Your task to perform on an android device: Is it going to rain this weekend? Image 0: 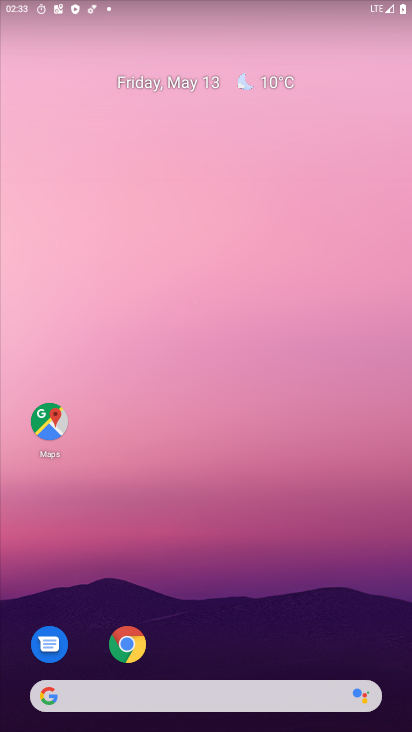
Step 0: drag from (354, 665) to (304, 3)
Your task to perform on an android device: Is it going to rain this weekend? Image 1: 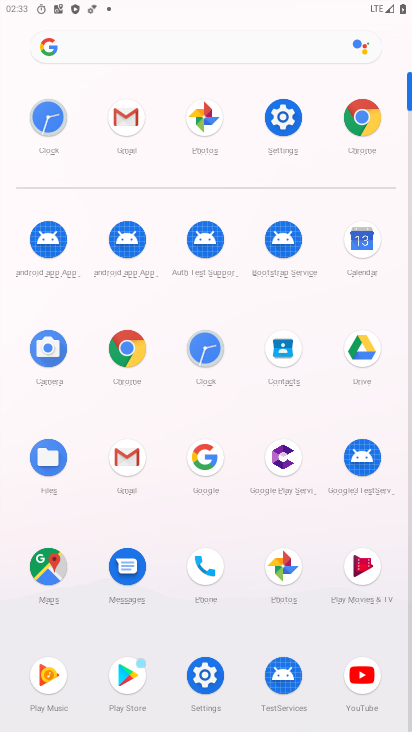
Step 1: click (123, 352)
Your task to perform on an android device: Is it going to rain this weekend? Image 2: 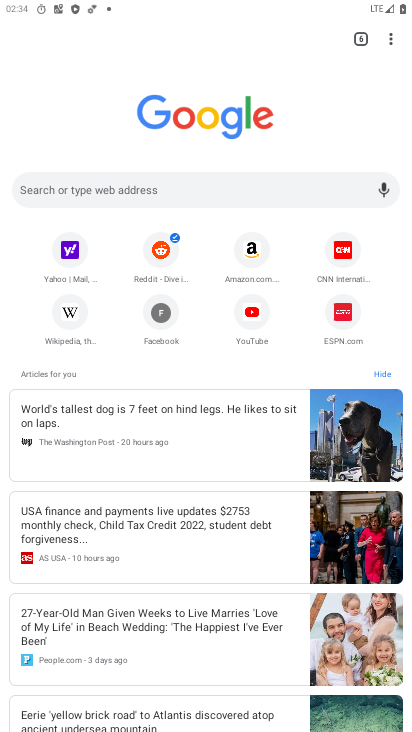
Step 2: click (217, 198)
Your task to perform on an android device: Is it going to rain this weekend? Image 3: 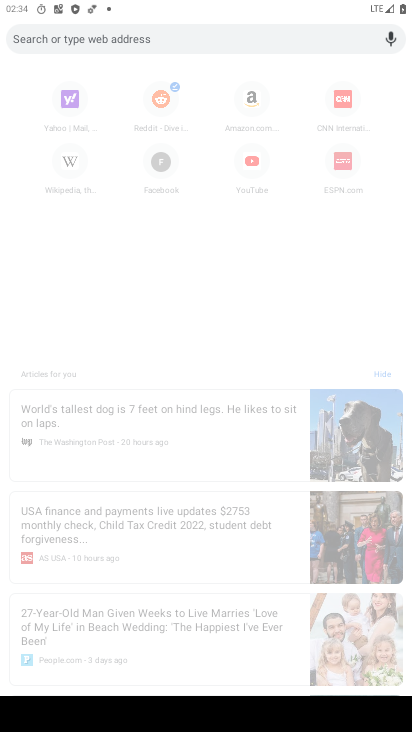
Step 3: type "is it going to rain this weekend"
Your task to perform on an android device: Is it going to rain this weekend? Image 4: 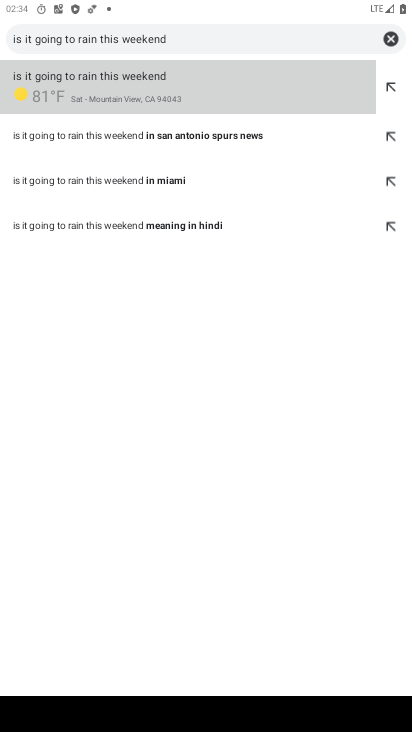
Step 4: click (160, 95)
Your task to perform on an android device: Is it going to rain this weekend? Image 5: 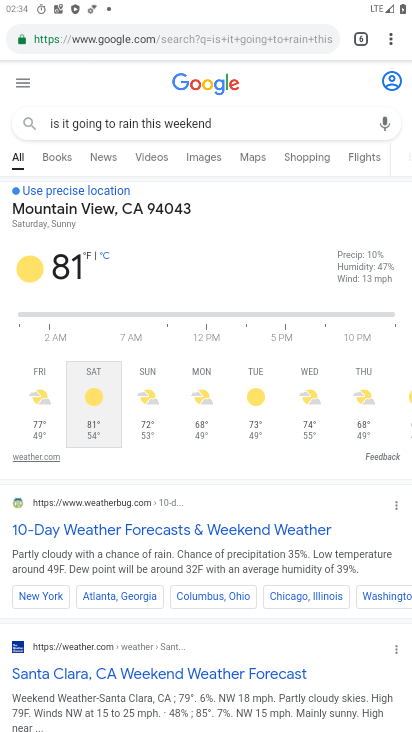
Step 5: task complete